Your task to perform on an android device: Open calendar and show me the second week of next month Image 0: 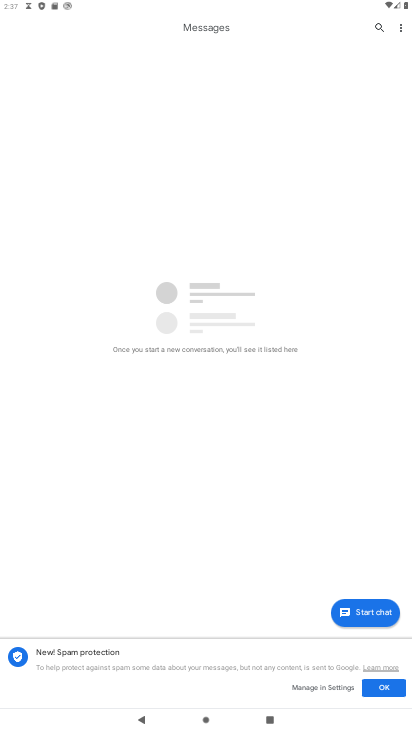
Step 0: press home button
Your task to perform on an android device: Open calendar and show me the second week of next month Image 1: 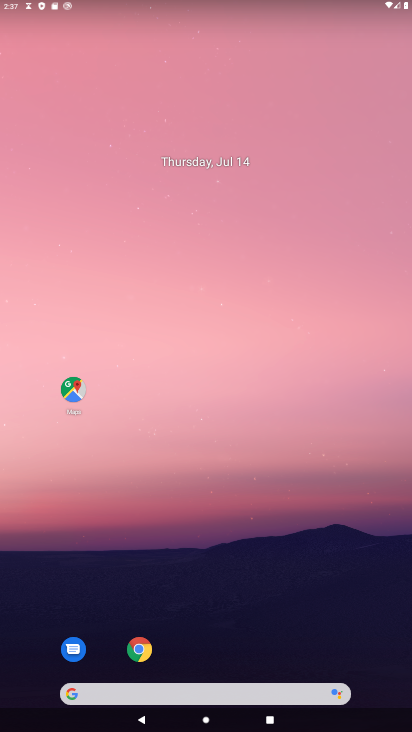
Step 1: drag from (202, 571) to (181, 18)
Your task to perform on an android device: Open calendar and show me the second week of next month Image 2: 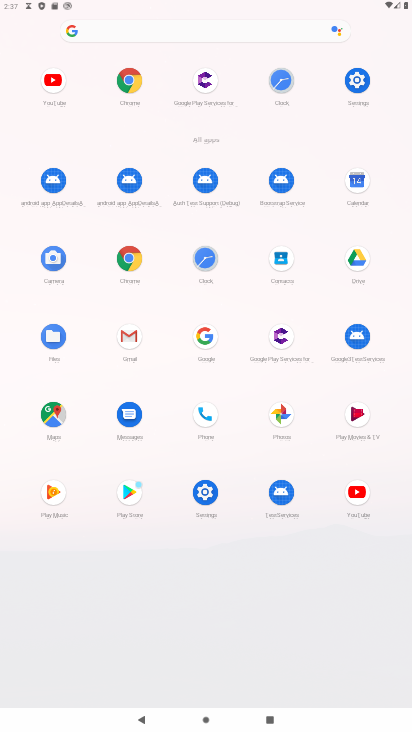
Step 2: click (356, 186)
Your task to perform on an android device: Open calendar and show me the second week of next month Image 3: 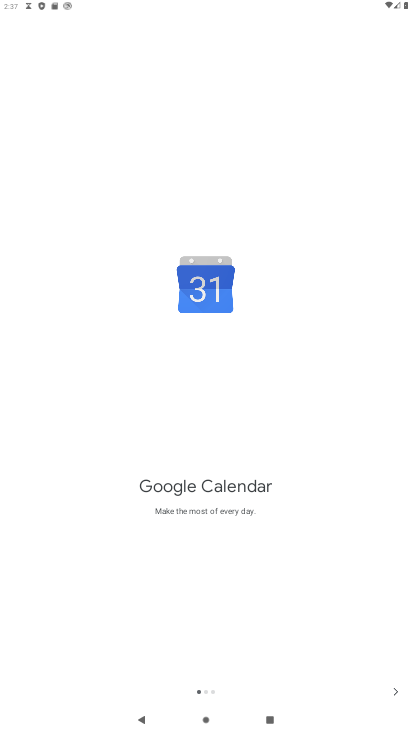
Step 3: click (393, 692)
Your task to perform on an android device: Open calendar and show me the second week of next month Image 4: 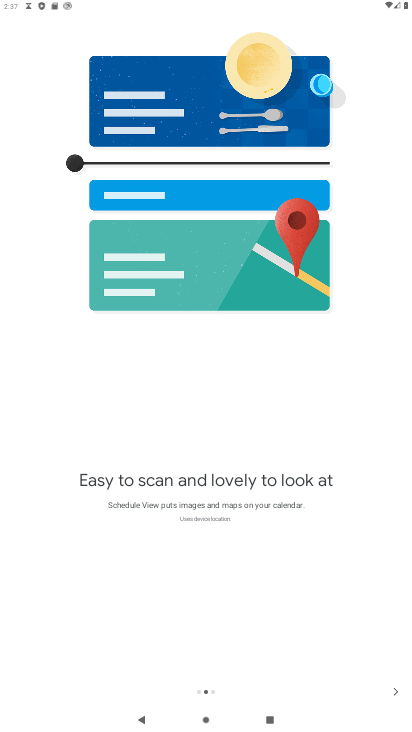
Step 4: click (388, 687)
Your task to perform on an android device: Open calendar and show me the second week of next month Image 5: 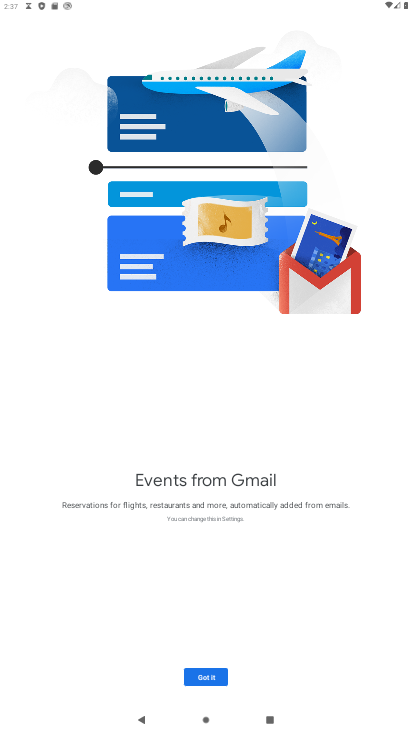
Step 5: click (213, 676)
Your task to perform on an android device: Open calendar and show me the second week of next month Image 6: 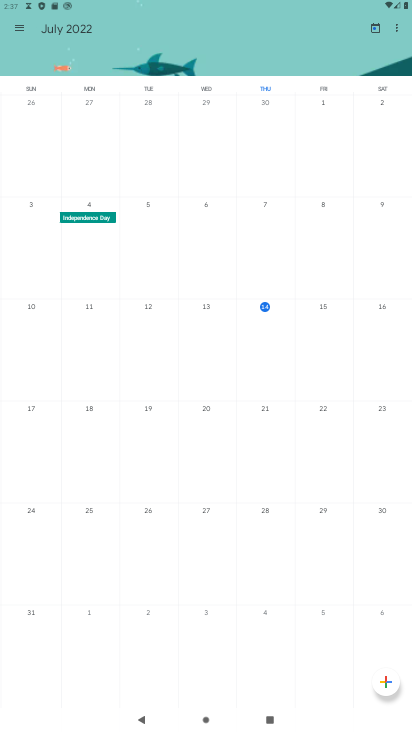
Step 6: drag from (339, 211) to (0, 67)
Your task to perform on an android device: Open calendar and show me the second week of next month Image 7: 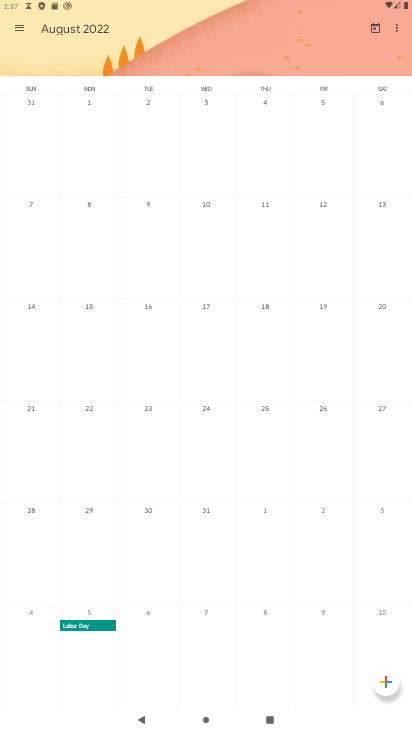
Step 7: click (17, 26)
Your task to perform on an android device: Open calendar and show me the second week of next month Image 8: 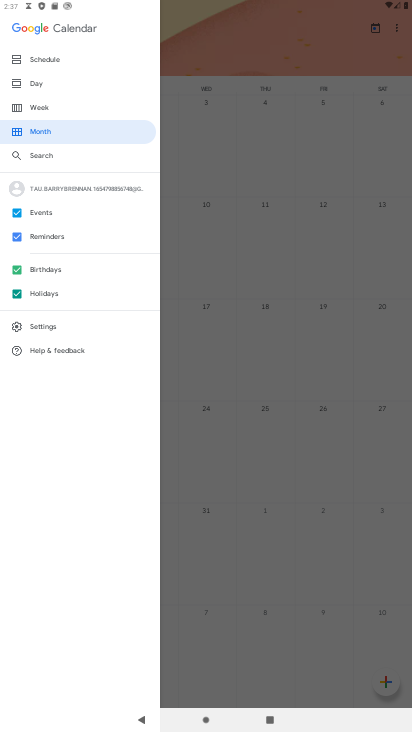
Step 8: click (46, 108)
Your task to perform on an android device: Open calendar and show me the second week of next month Image 9: 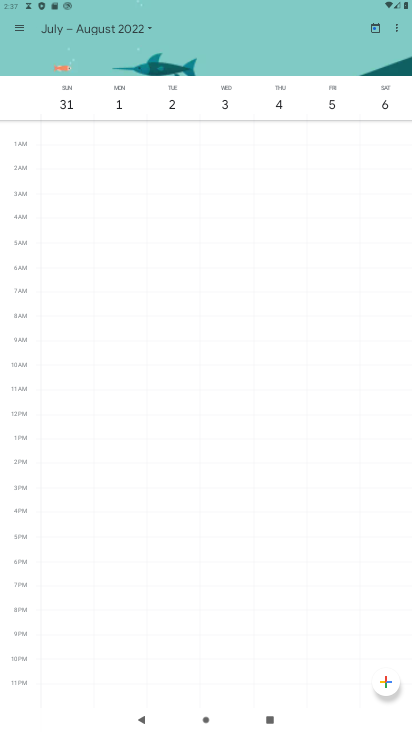
Step 9: task complete